Your task to perform on an android device: Toggle the flashlight Image 0: 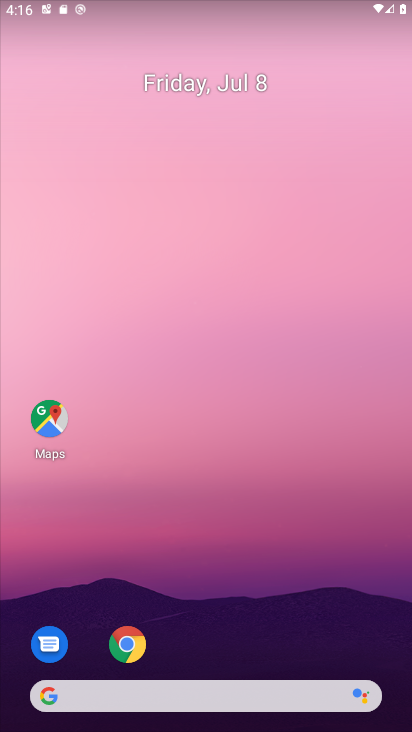
Step 0: drag from (212, 19) to (194, 362)
Your task to perform on an android device: Toggle the flashlight Image 1: 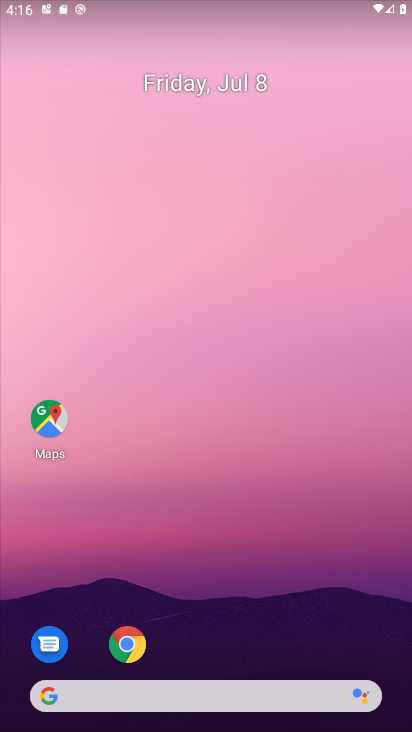
Step 1: drag from (218, 19) to (218, 405)
Your task to perform on an android device: Toggle the flashlight Image 2: 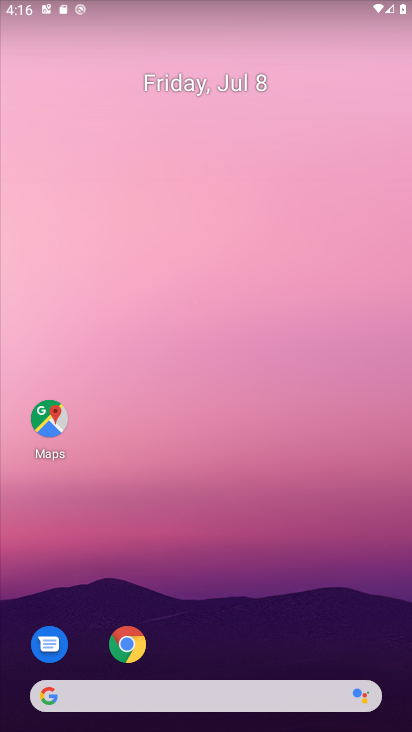
Step 2: drag from (213, 12) to (250, 429)
Your task to perform on an android device: Toggle the flashlight Image 3: 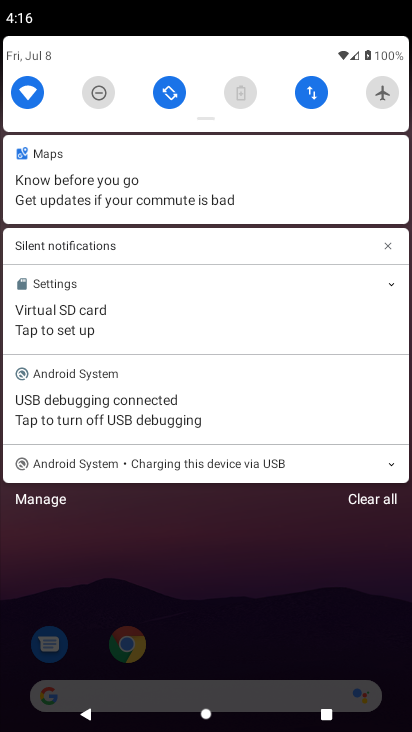
Step 3: drag from (203, 122) to (205, 302)
Your task to perform on an android device: Toggle the flashlight Image 4: 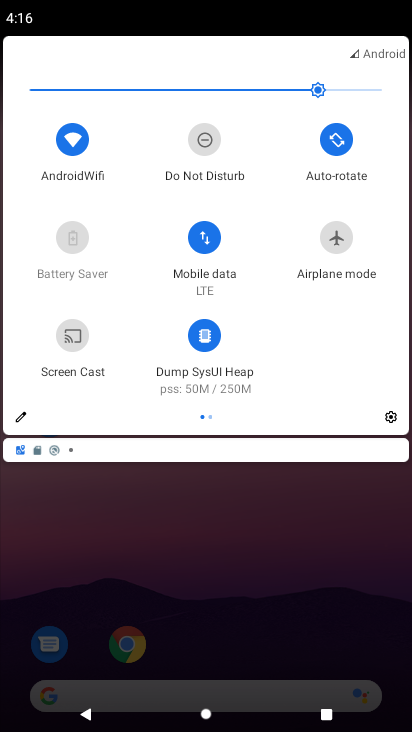
Step 4: click (18, 416)
Your task to perform on an android device: Toggle the flashlight Image 5: 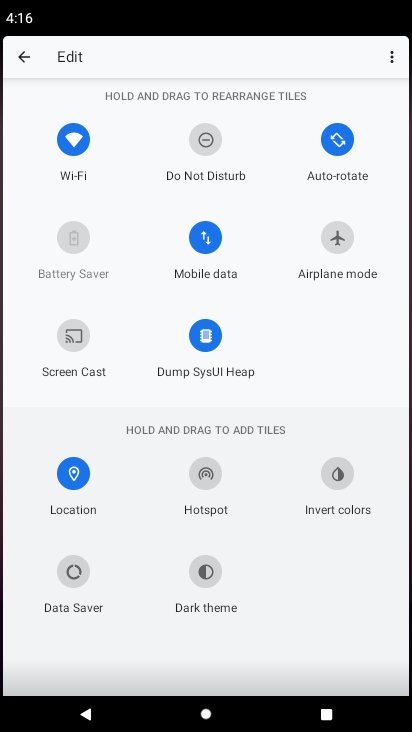
Step 5: task complete